Your task to perform on an android device: show emergency info Image 0: 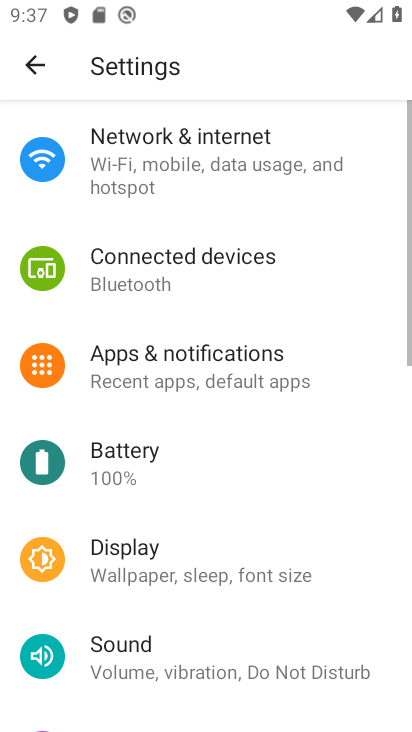
Step 0: press home button
Your task to perform on an android device: show emergency info Image 1: 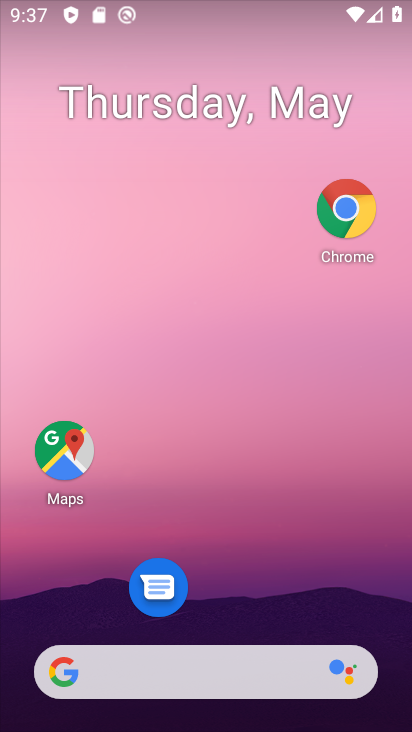
Step 1: drag from (213, 605) to (203, 3)
Your task to perform on an android device: show emergency info Image 2: 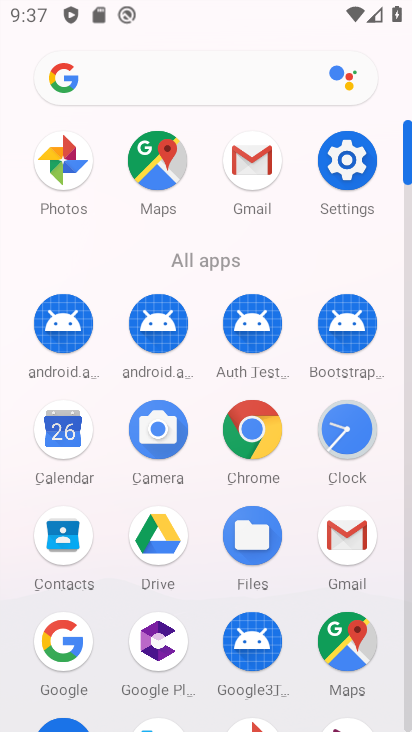
Step 2: click (338, 169)
Your task to perform on an android device: show emergency info Image 3: 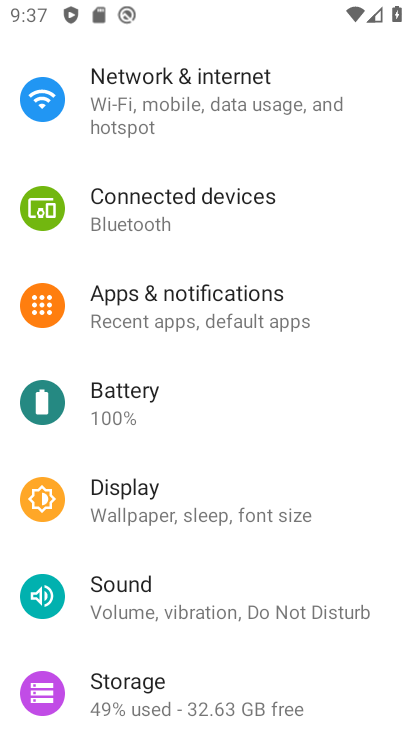
Step 3: drag from (210, 668) to (261, 218)
Your task to perform on an android device: show emergency info Image 4: 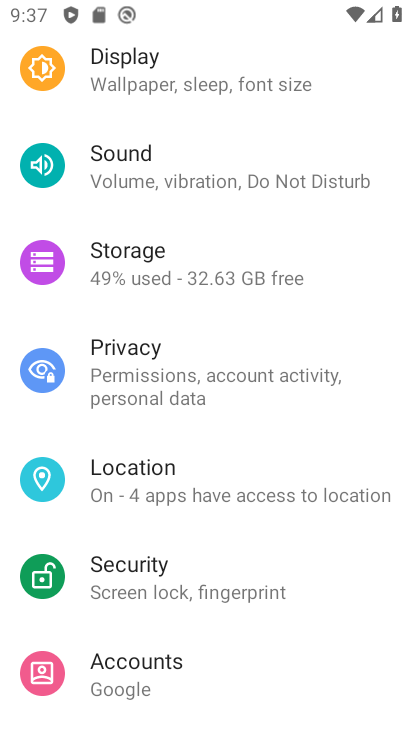
Step 4: drag from (182, 622) to (224, 158)
Your task to perform on an android device: show emergency info Image 5: 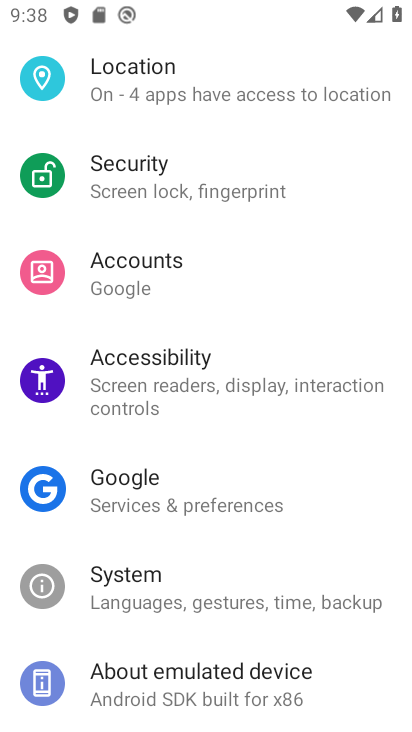
Step 5: drag from (156, 629) to (252, 131)
Your task to perform on an android device: show emergency info Image 6: 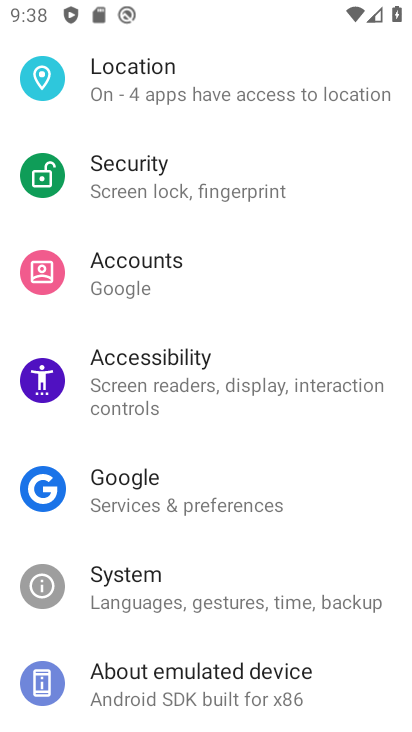
Step 6: click (186, 694)
Your task to perform on an android device: show emergency info Image 7: 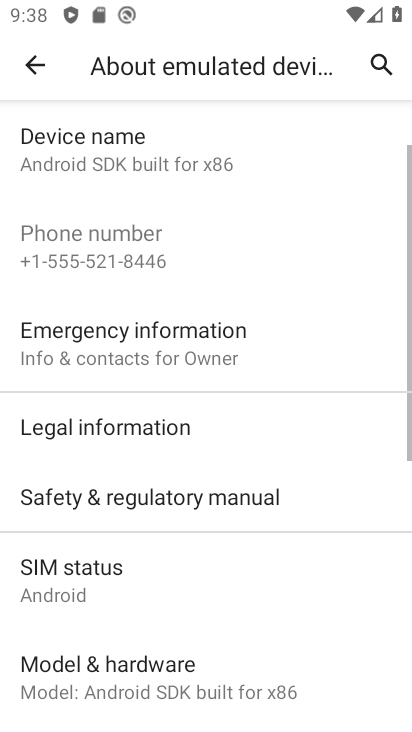
Step 7: click (144, 361)
Your task to perform on an android device: show emergency info Image 8: 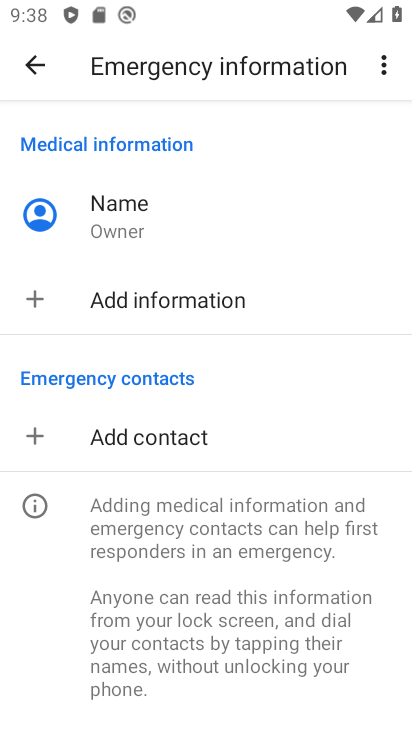
Step 8: task complete